Your task to perform on an android device: add a contact Image 0: 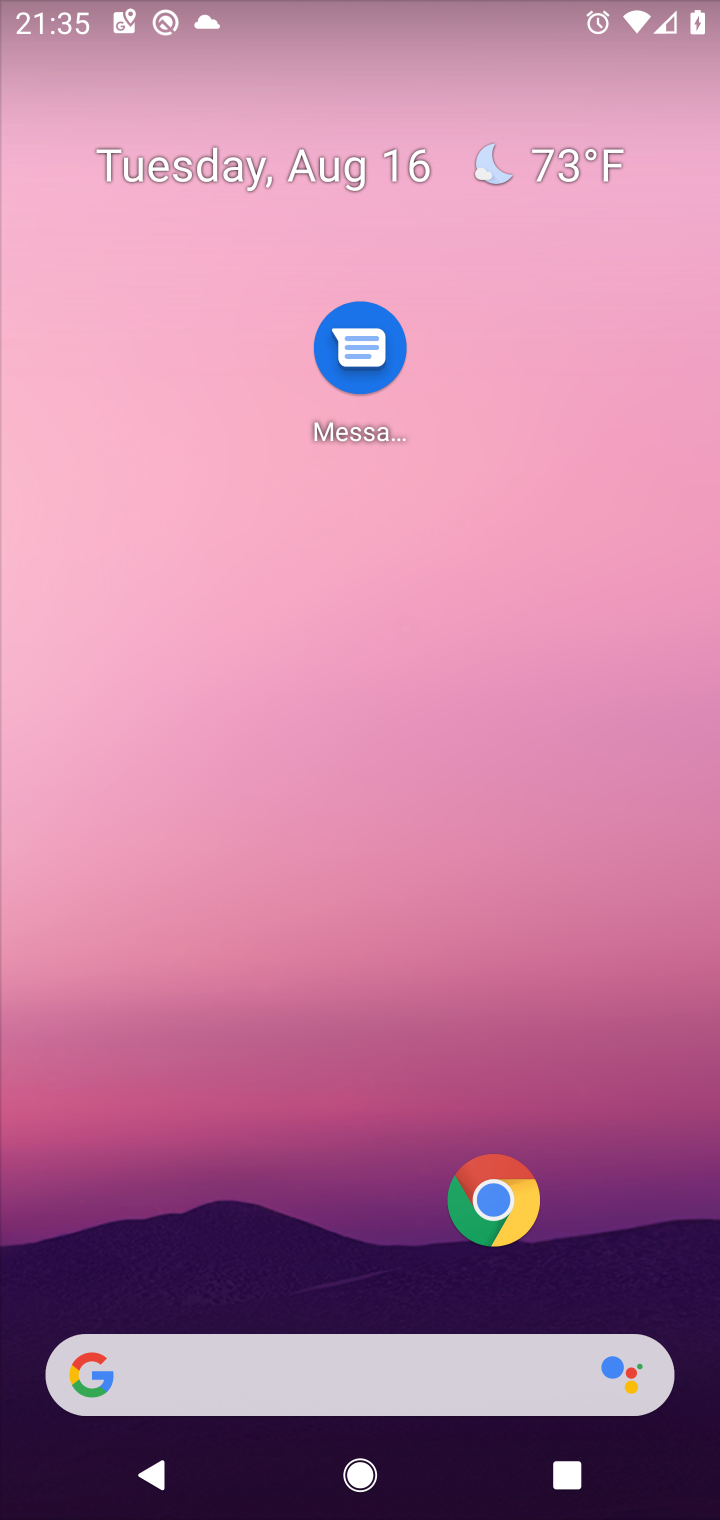
Step 0: drag from (58, 1470) to (157, 794)
Your task to perform on an android device: add a contact Image 1: 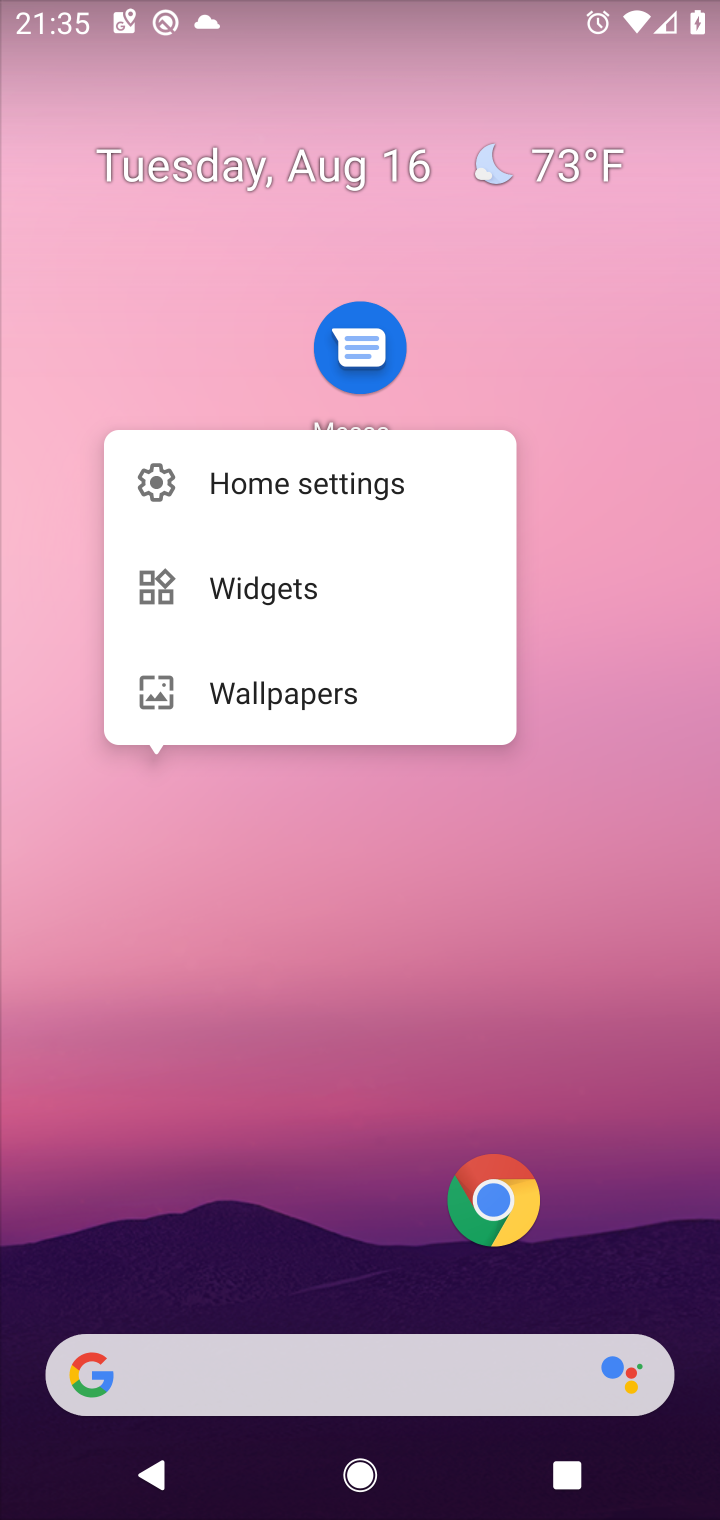
Step 1: drag from (183, 1359) to (629, 337)
Your task to perform on an android device: add a contact Image 2: 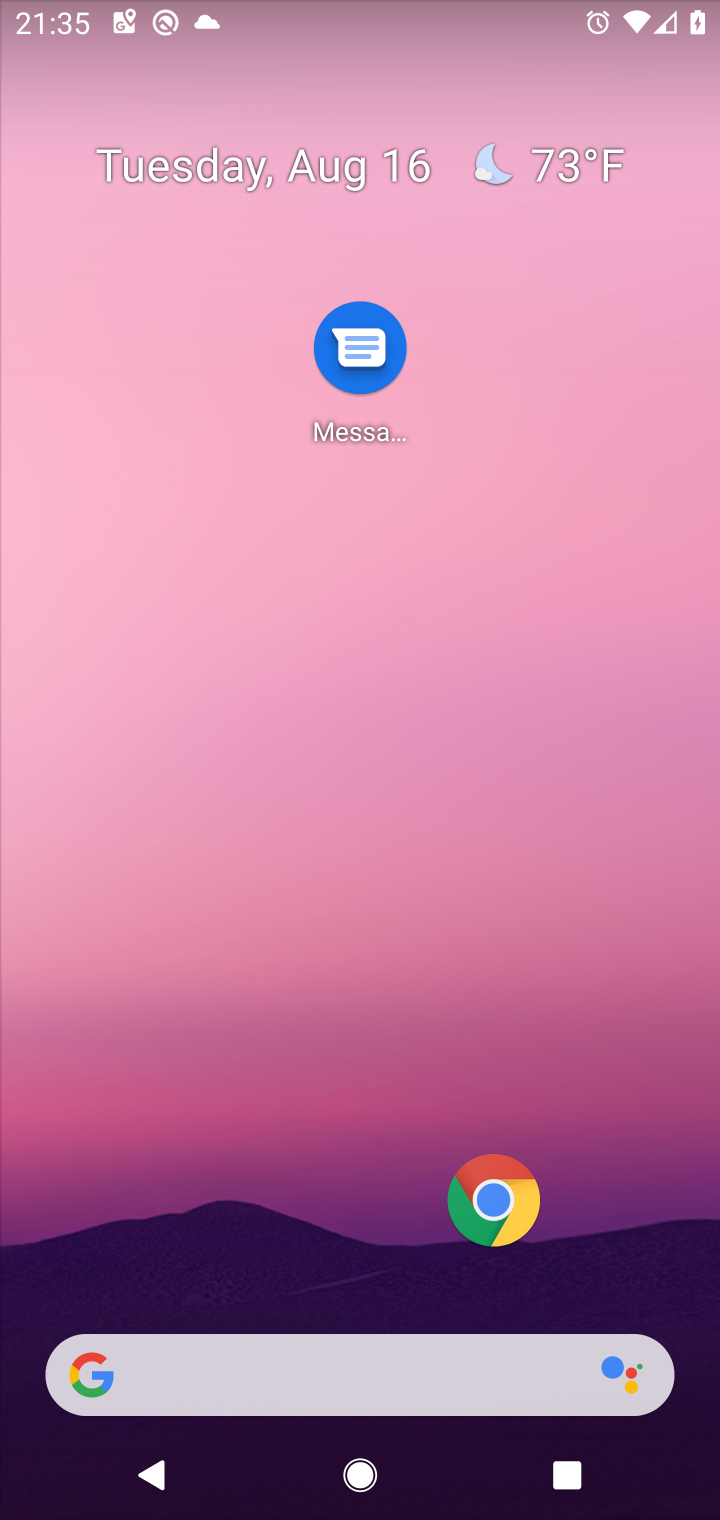
Step 2: drag from (64, 1411) to (267, 376)
Your task to perform on an android device: add a contact Image 3: 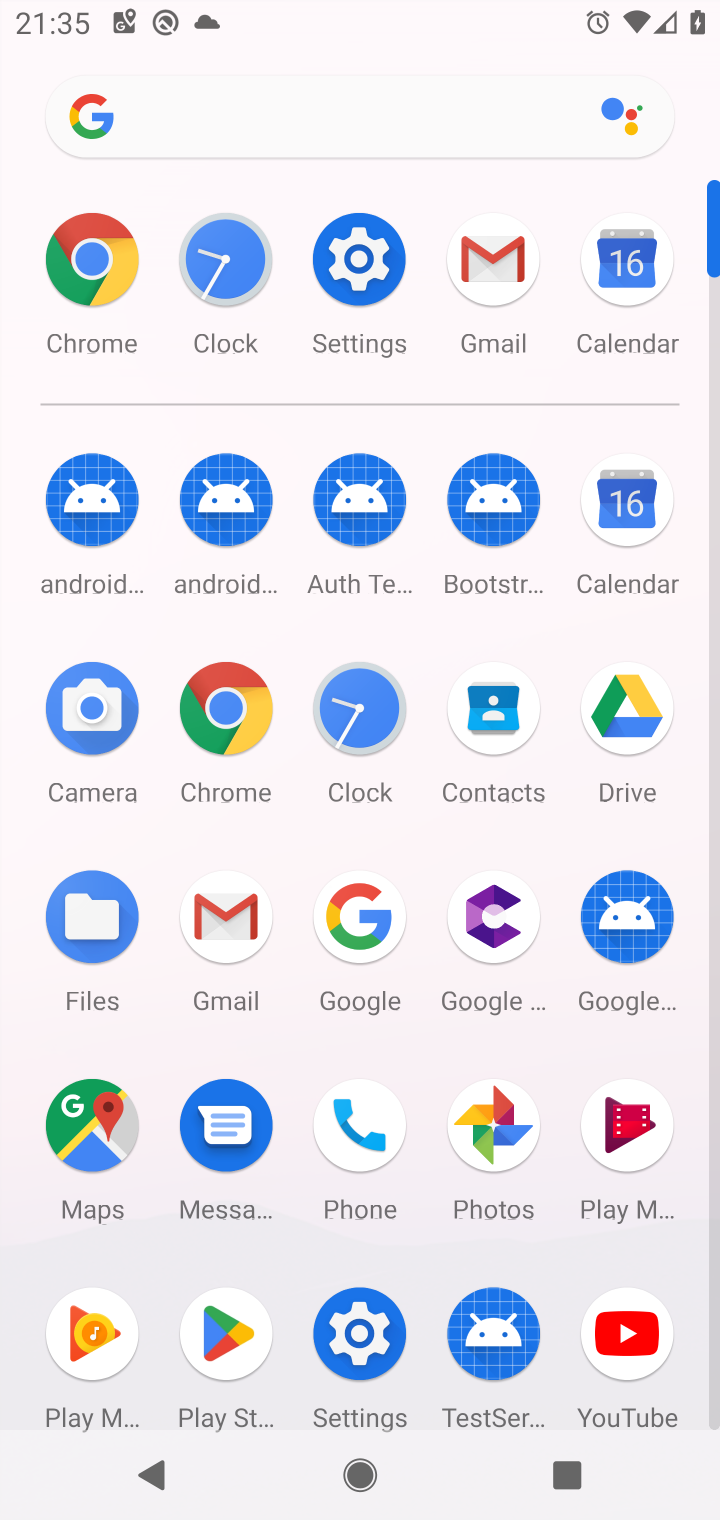
Step 3: click (350, 1135)
Your task to perform on an android device: add a contact Image 4: 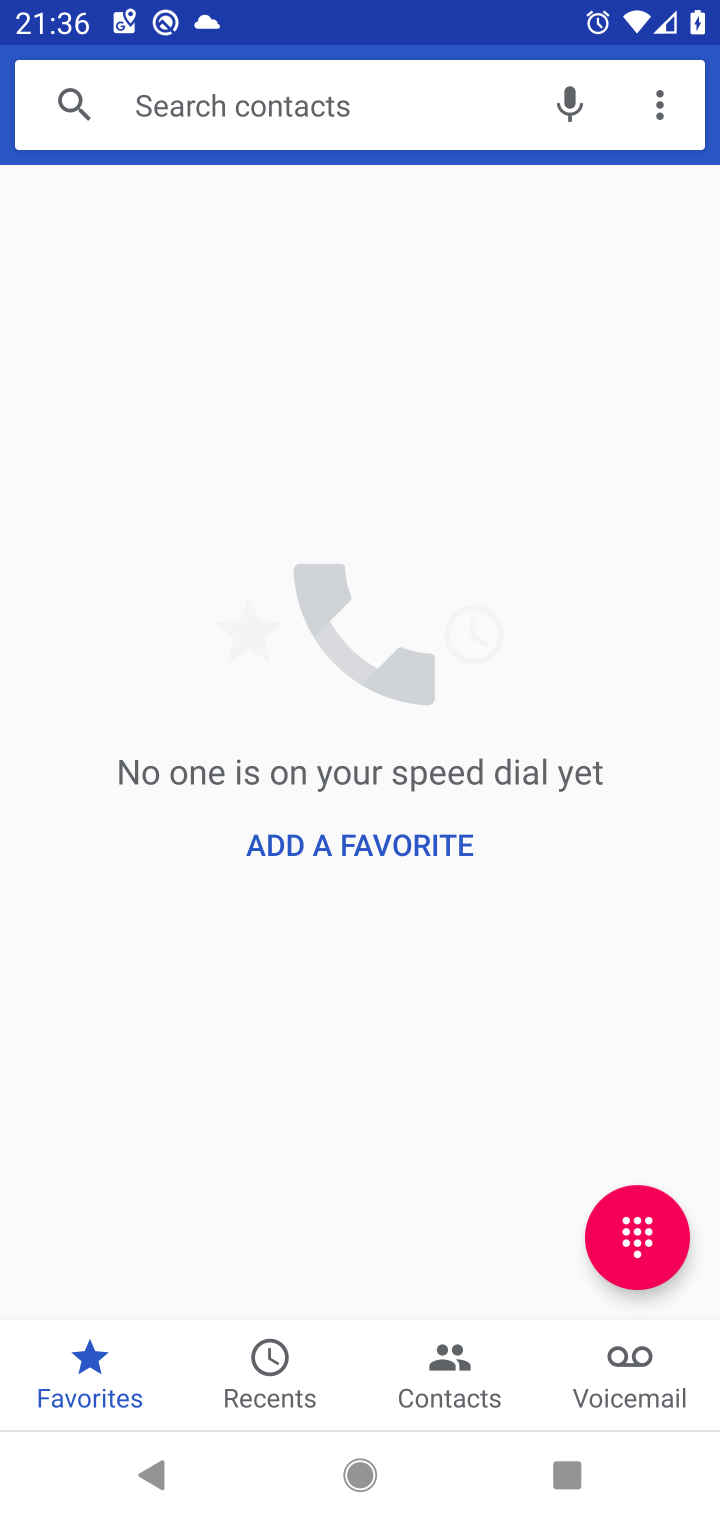
Step 4: click (454, 1390)
Your task to perform on an android device: add a contact Image 5: 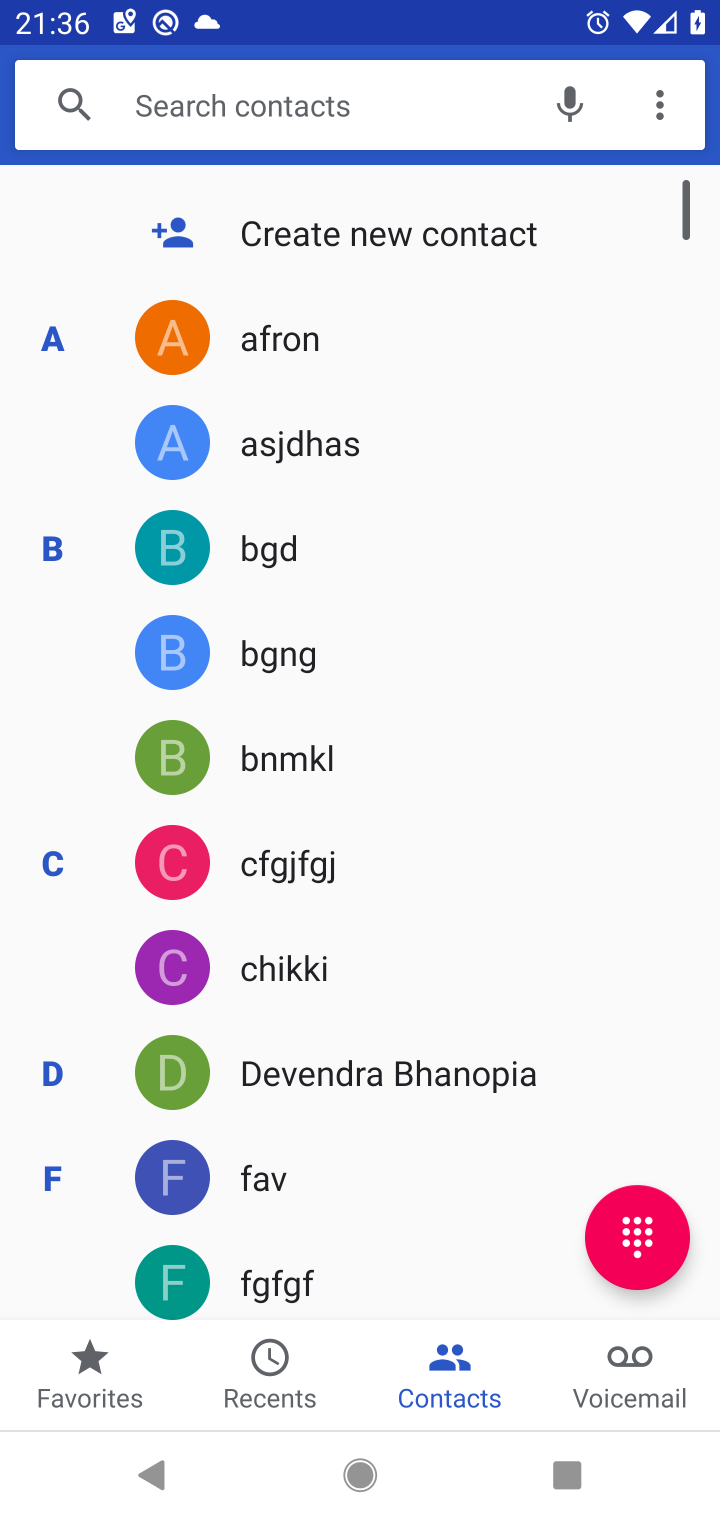
Step 5: click (357, 214)
Your task to perform on an android device: add a contact Image 6: 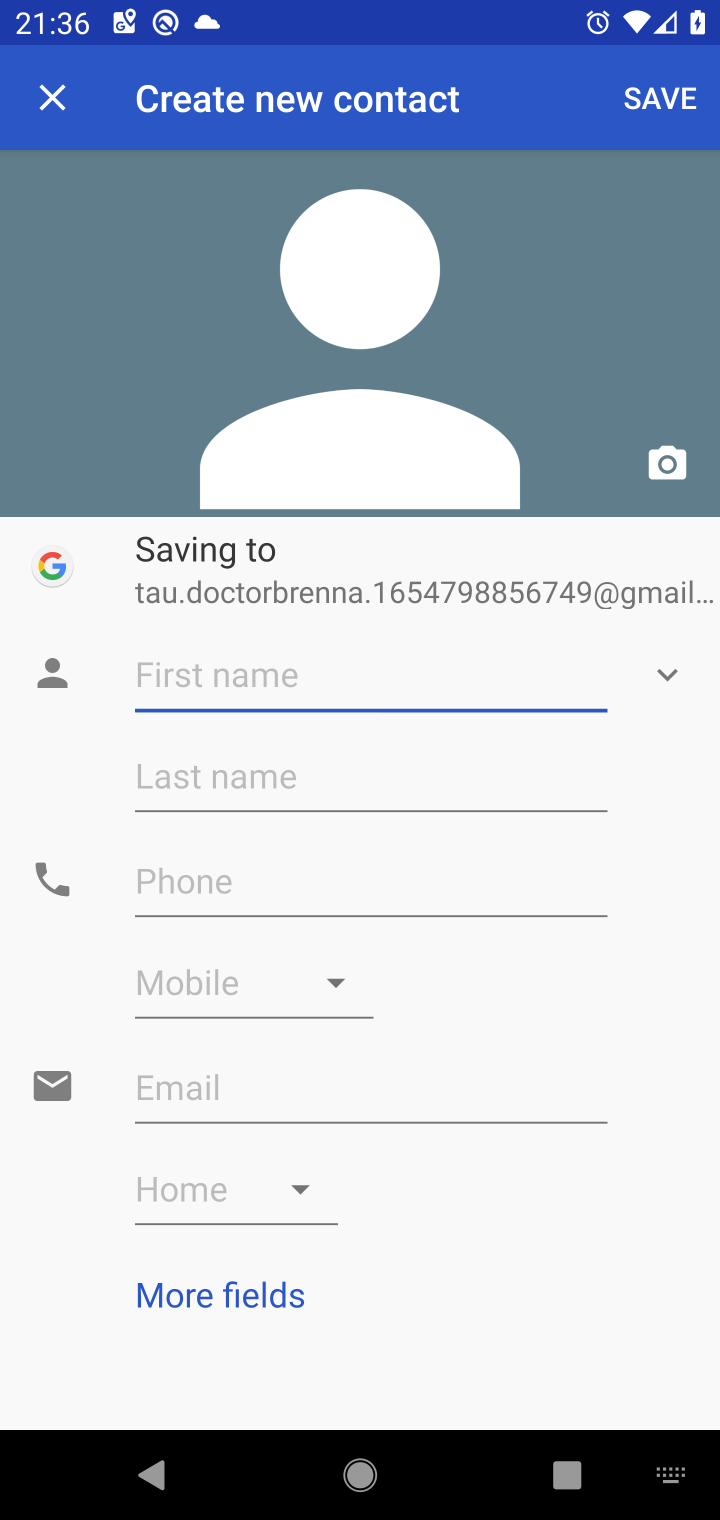
Step 6: type "dfhgfjtdf"
Your task to perform on an android device: add a contact Image 7: 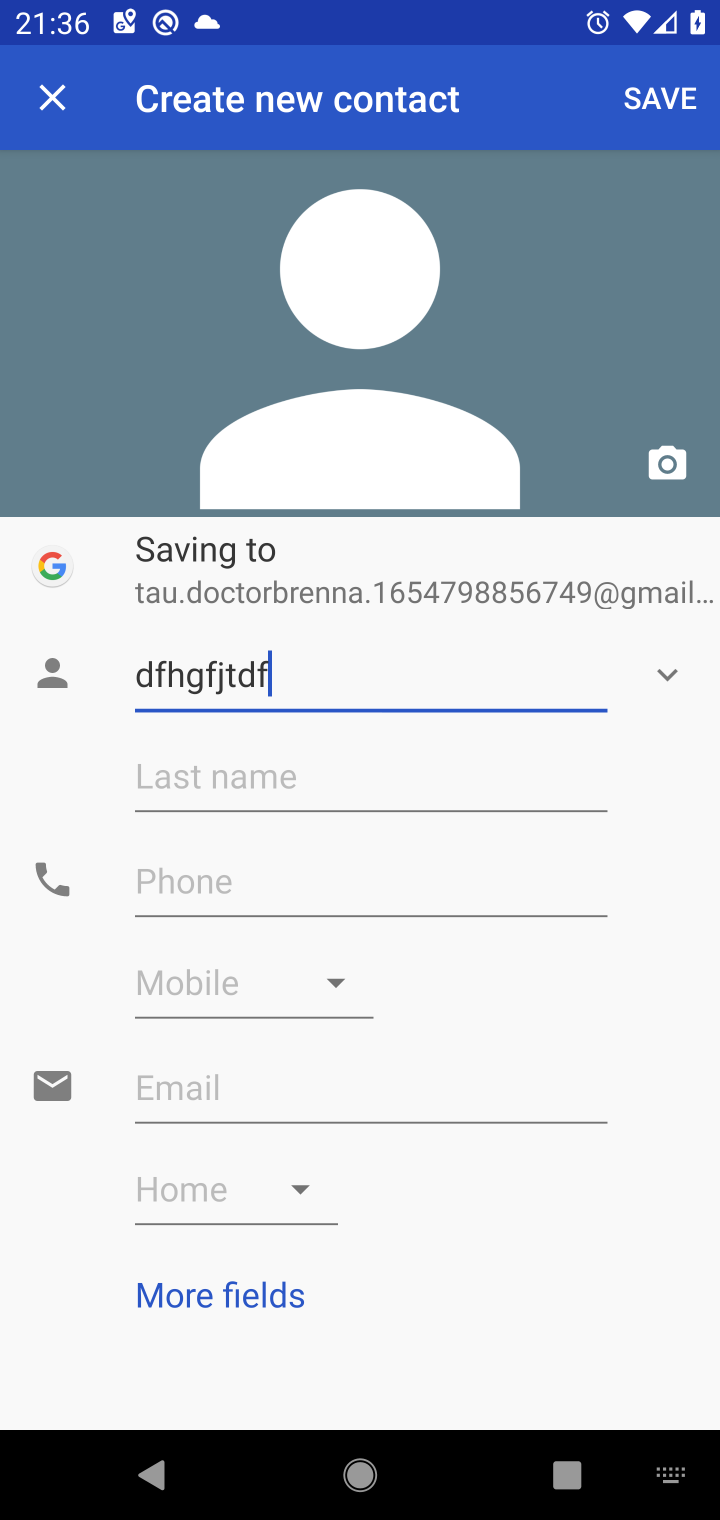
Step 7: click (634, 117)
Your task to perform on an android device: add a contact Image 8: 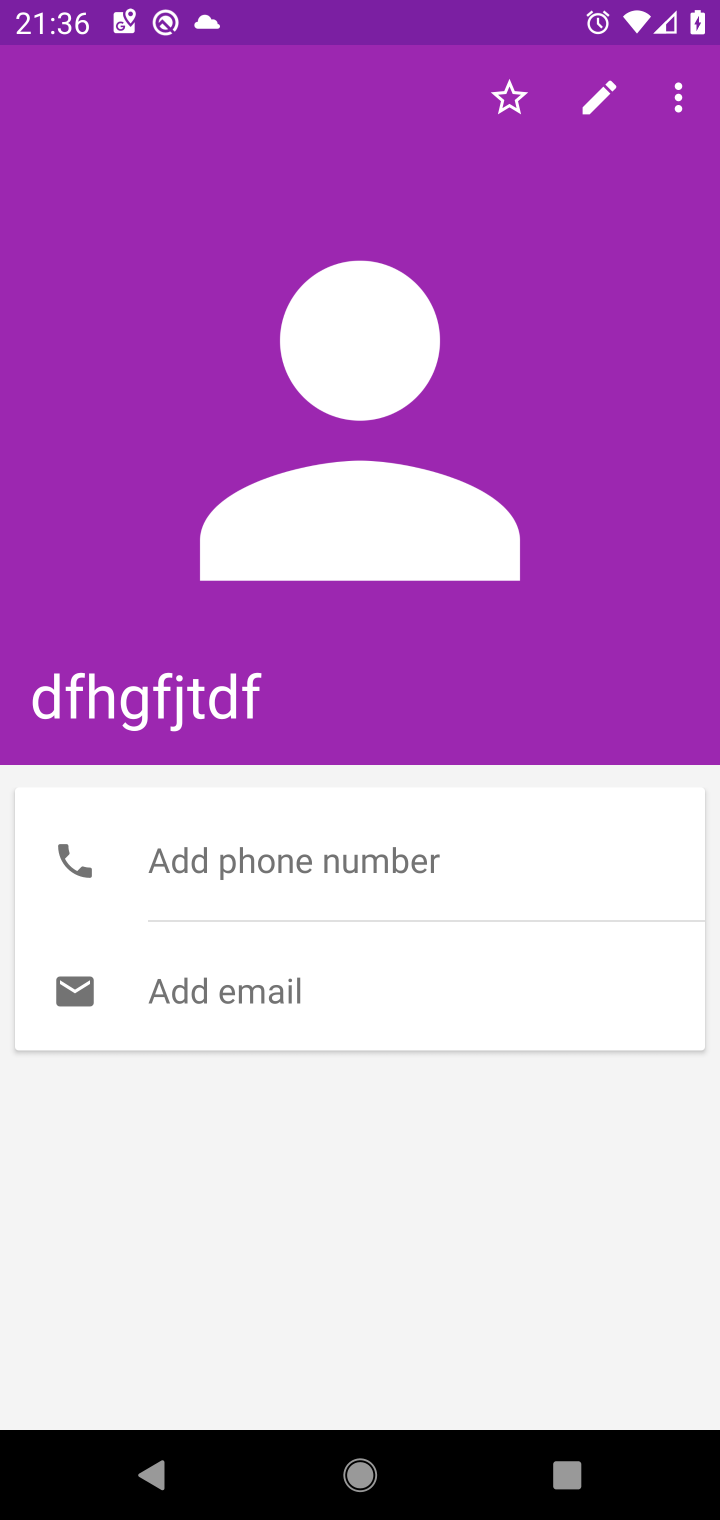
Step 8: task complete